Your task to perform on an android device: Go to Amazon Image 0: 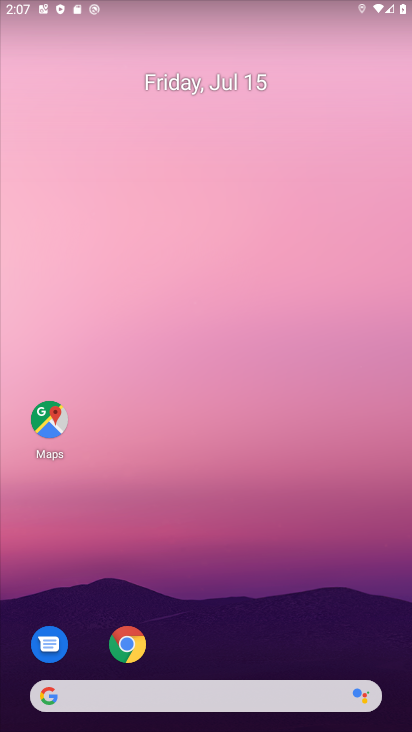
Step 0: drag from (386, 651) to (211, 102)
Your task to perform on an android device: Go to Amazon Image 1: 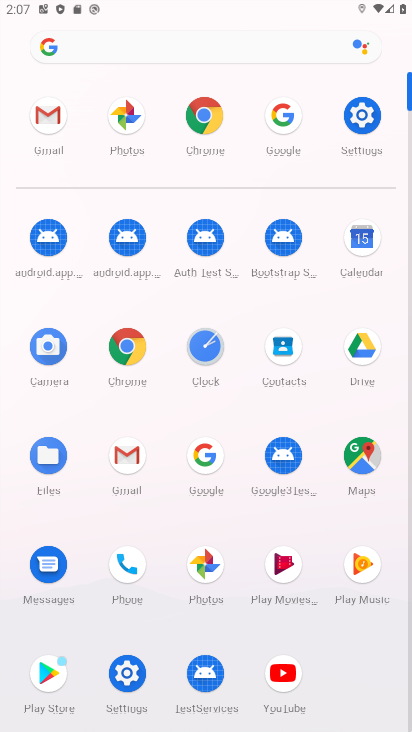
Step 1: click (199, 457)
Your task to perform on an android device: Go to Amazon Image 2: 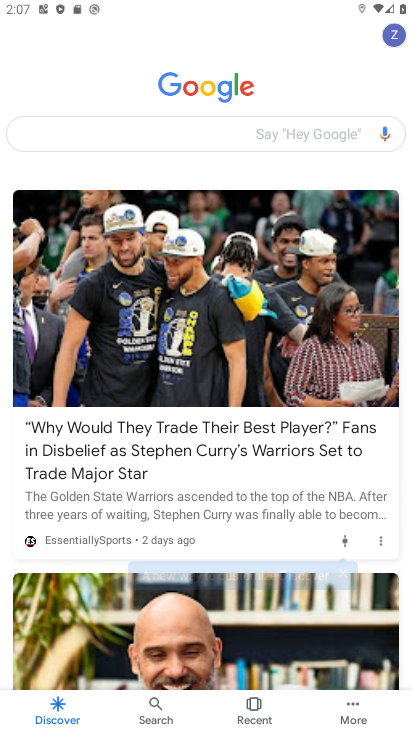
Step 2: click (152, 146)
Your task to perform on an android device: Go to Amazon Image 3: 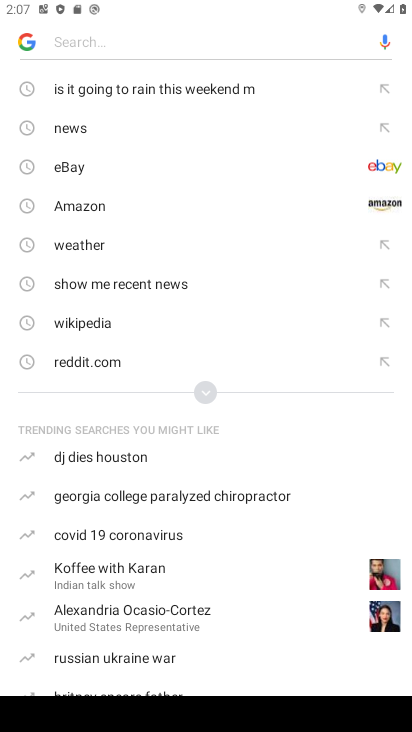
Step 3: click (101, 208)
Your task to perform on an android device: Go to Amazon Image 4: 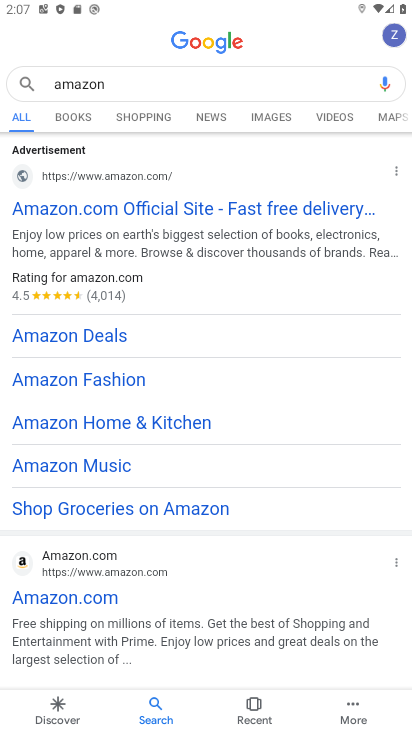
Step 4: task complete